Your task to perform on an android device: Show me the alarms in the clock app Image 0: 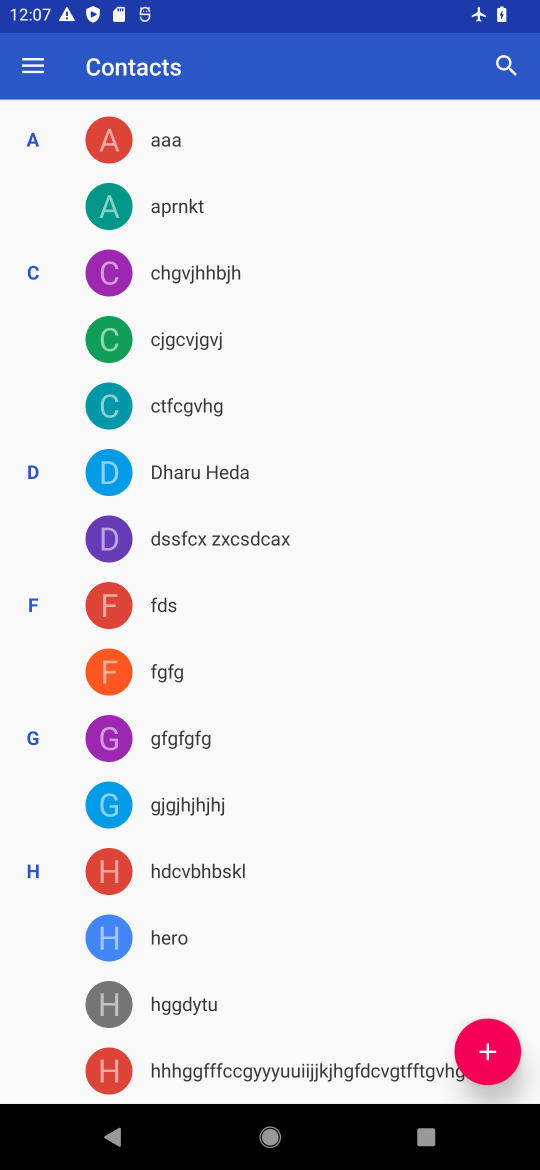
Step 0: press home button
Your task to perform on an android device: Show me the alarms in the clock app Image 1: 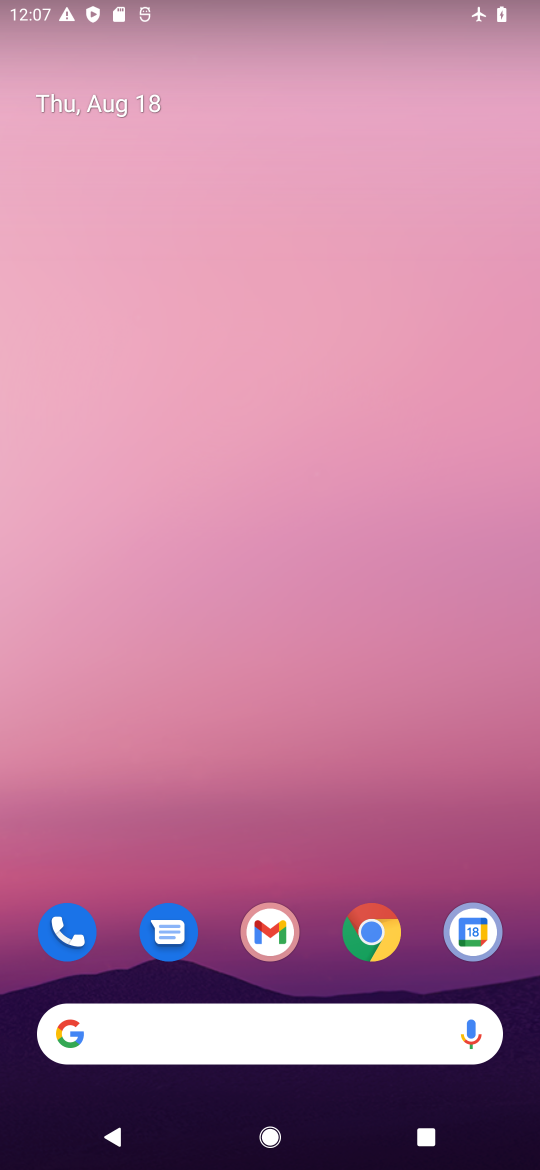
Step 1: drag from (322, 843) to (244, 186)
Your task to perform on an android device: Show me the alarms in the clock app Image 2: 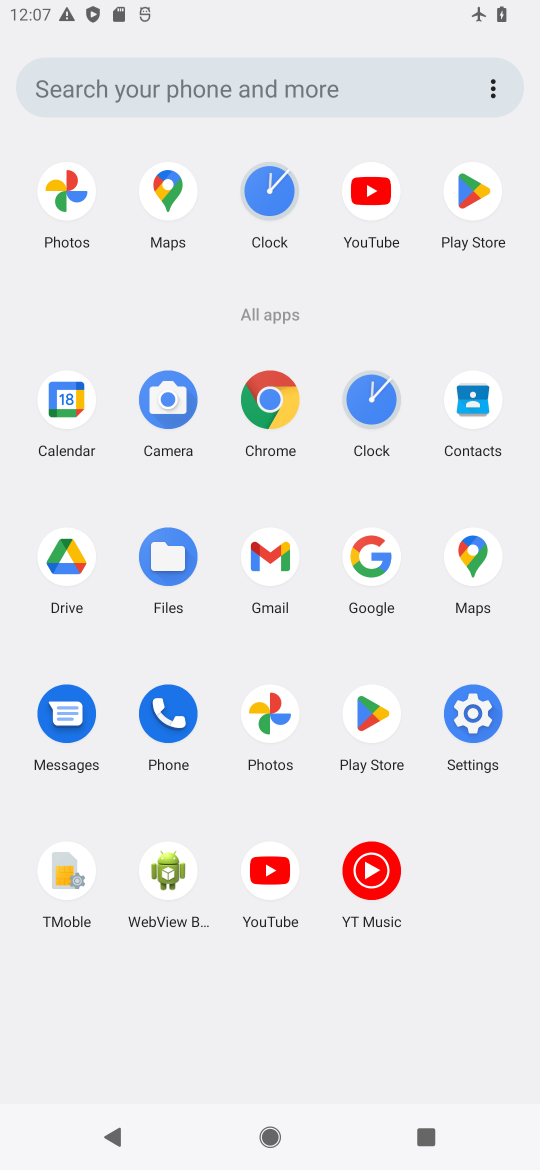
Step 2: click (252, 186)
Your task to perform on an android device: Show me the alarms in the clock app Image 3: 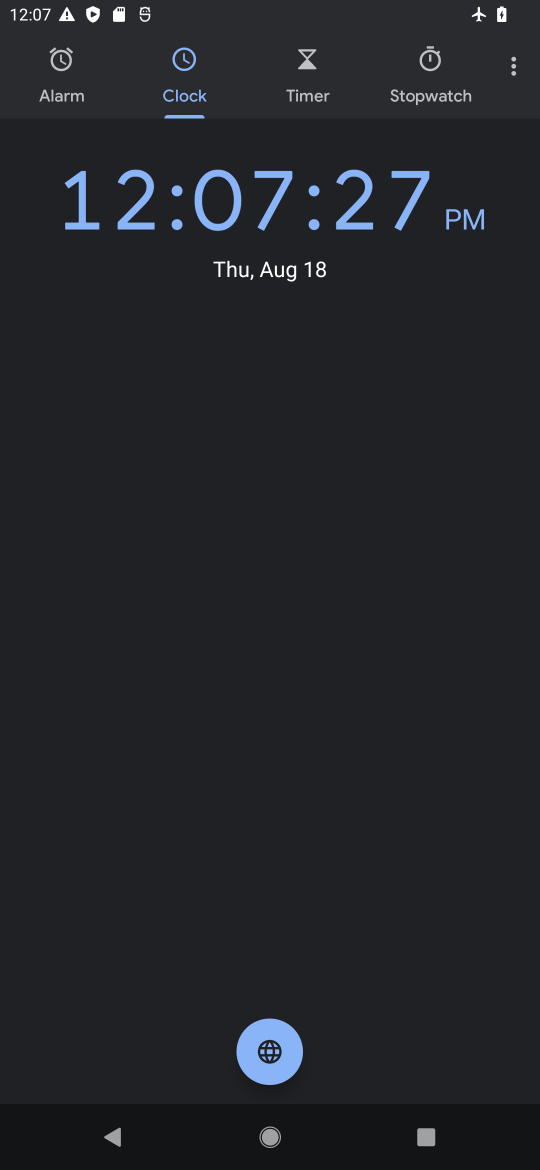
Step 3: click (507, 74)
Your task to perform on an android device: Show me the alarms in the clock app Image 4: 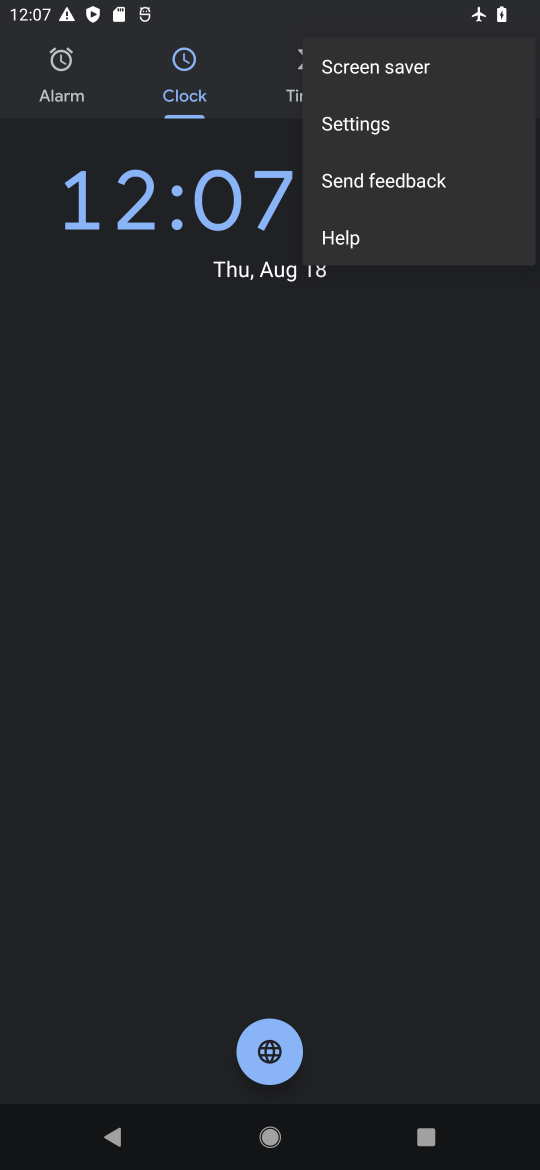
Step 4: click (58, 60)
Your task to perform on an android device: Show me the alarms in the clock app Image 5: 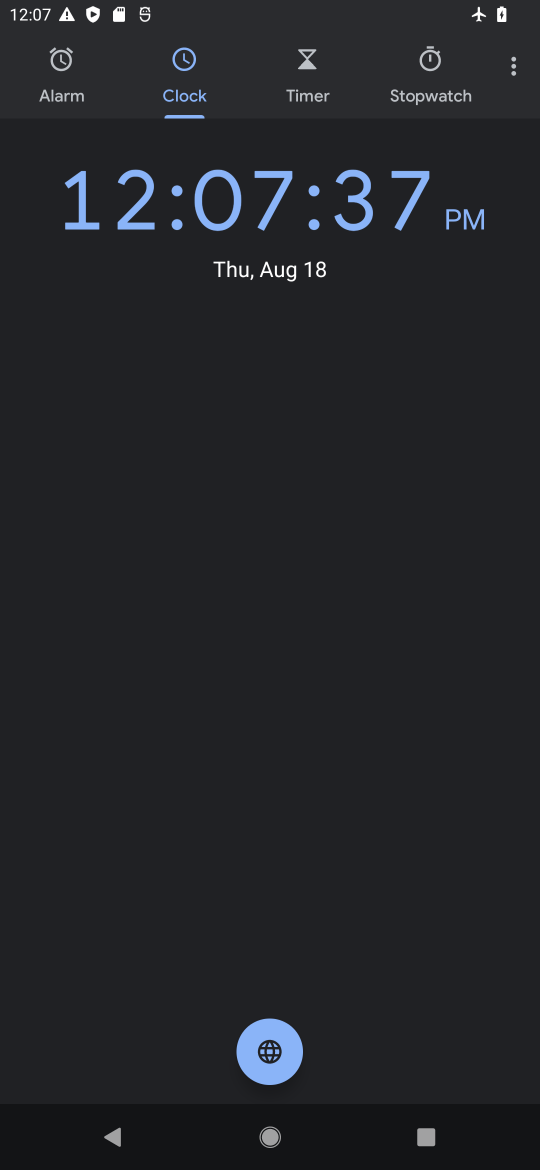
Step 5: click (53, 81)
Your task to perform on an android device: Show me the alarms in the clock app Image 6: 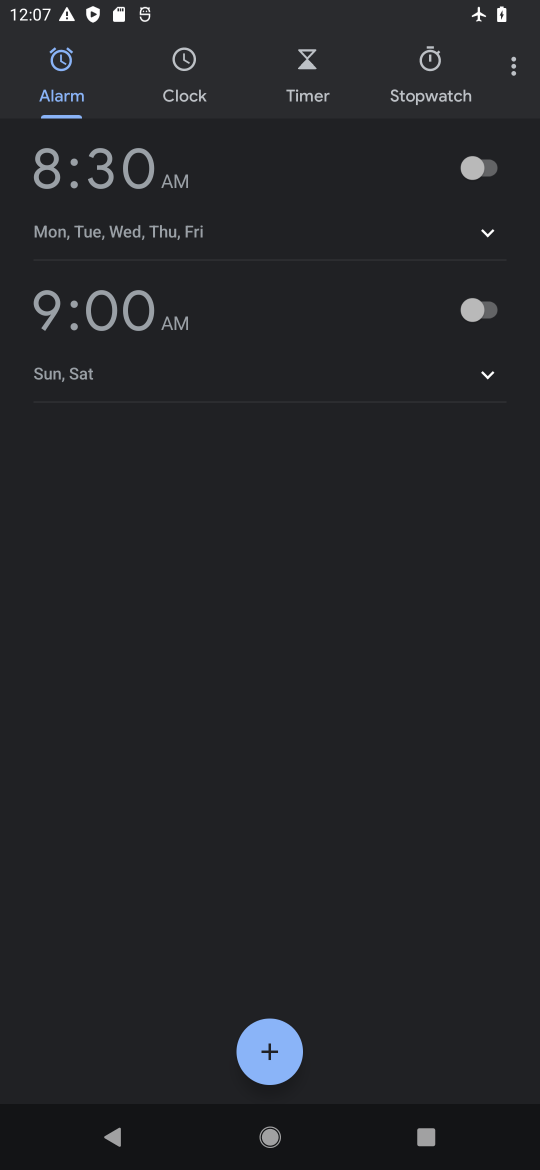
Step 6: task complete